Your task to perform on an android device: Open Youtube and go to the subscriptions tab Image 0: 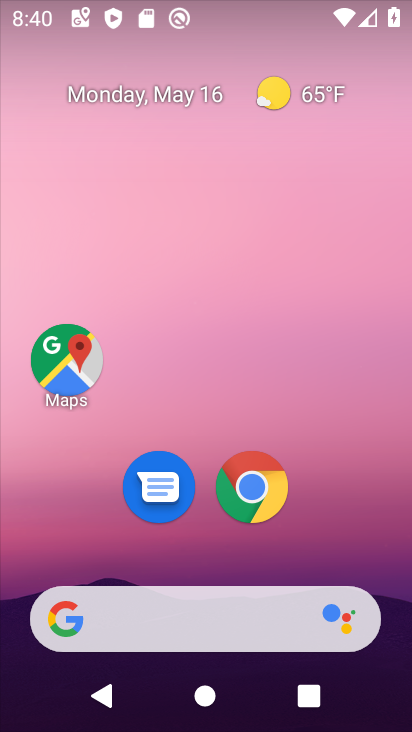
Step 0: drag from (321, 569) to (362, 125)
Your task to perform on an android device: Open Youtube and go to the subscriptions tab Image 1: 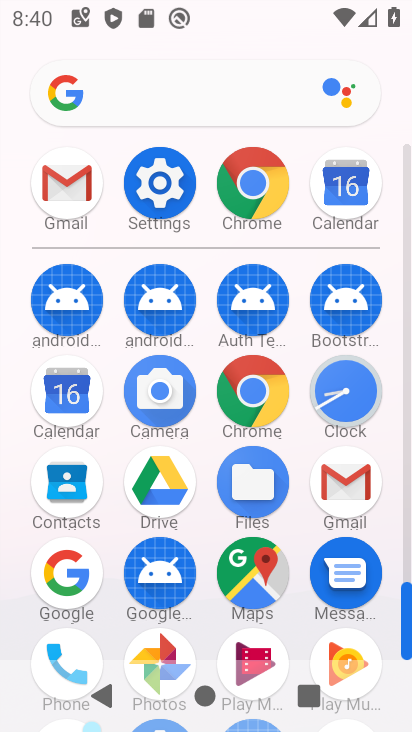
Step 1: drag from (199, 538) to (209, 285)
Your task to perform on an android device: Open Youtube and go to the subscriptions tab Image 2: 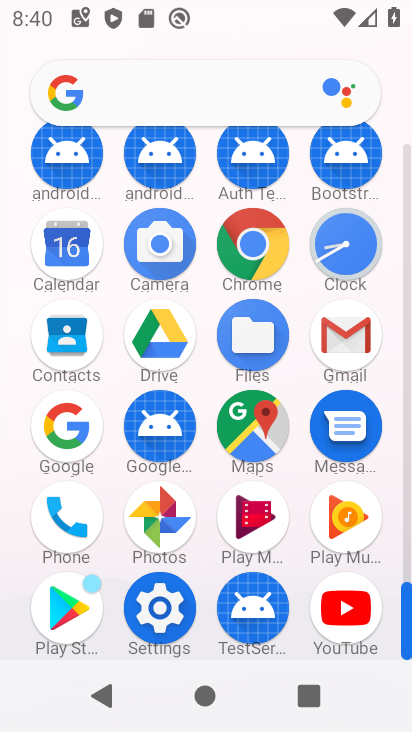
Step 2: click (343, 616)
Your task to perform on an android device: Open Youtube and go to the subscriptions tab Image 3: 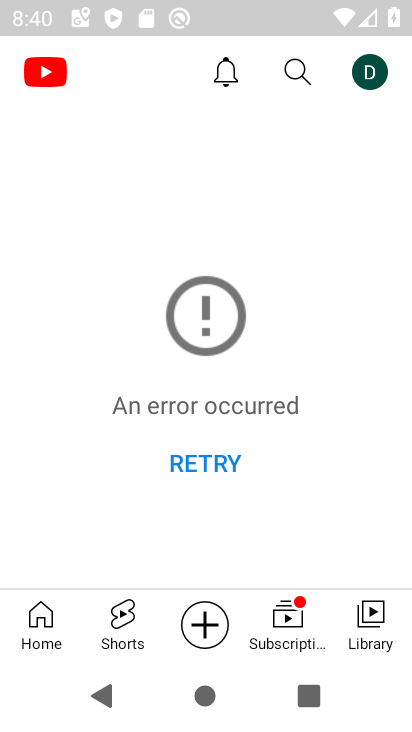
Step 3: click (282, 623)
Your task to perform on an android device: Open Youtube and go to the subscriptions tab Image 4: 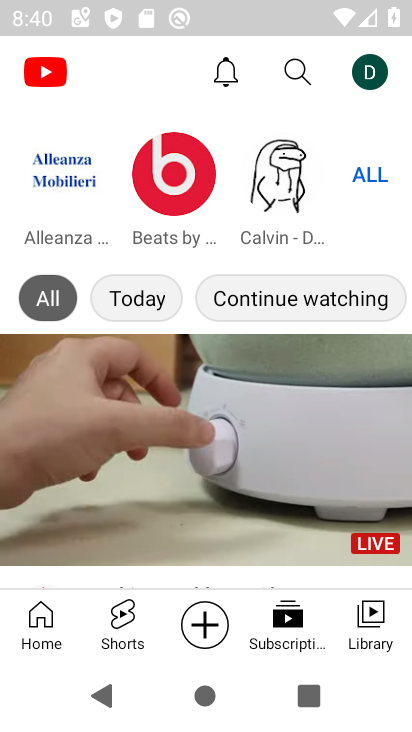
Step 4: click (279, 621)
Your task to perform on an android device: Open Youtube and go to the subscriptions tab Image 5: 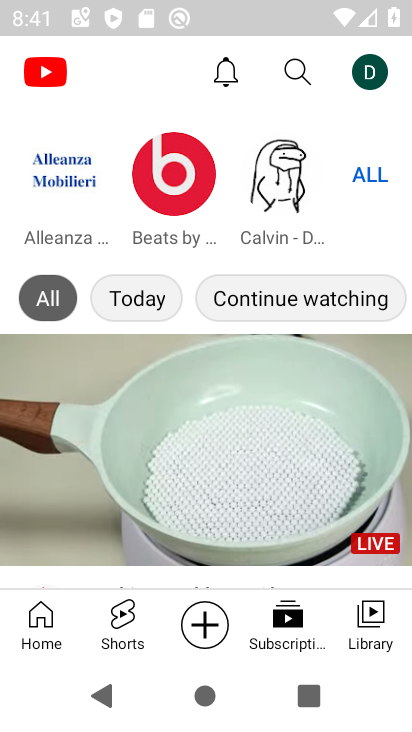
Step 5: task complete